Your task to perform on an android device: change timer sound Image 0: 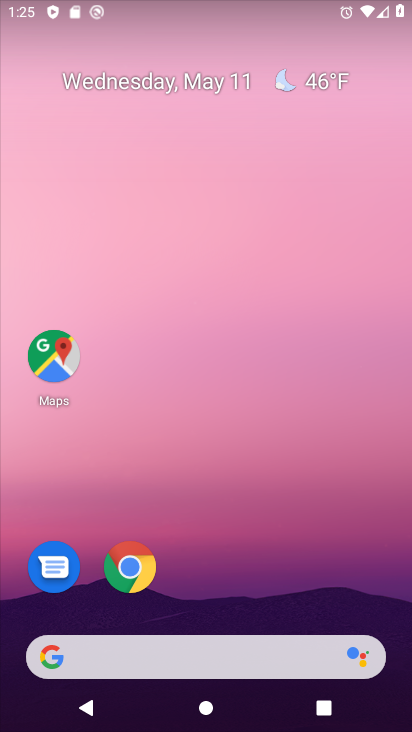
Step 0: drag from (240, 621) to (224, 5)
Your task to perform on an android device: change timer sound Image 1: 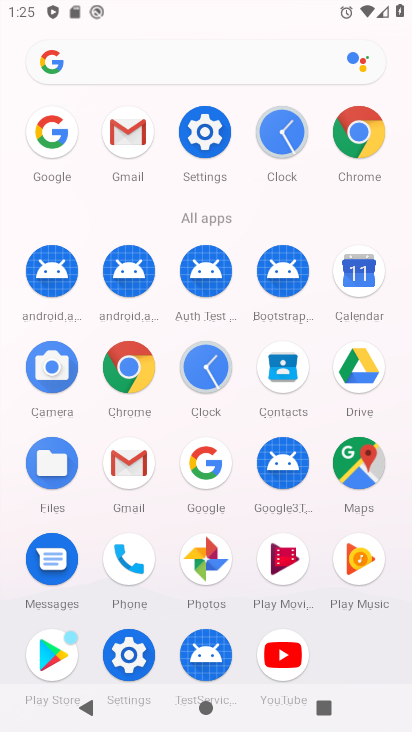
Step 1: click (194, 377)
Your task to perform on an android device: change timer sound Image 2: 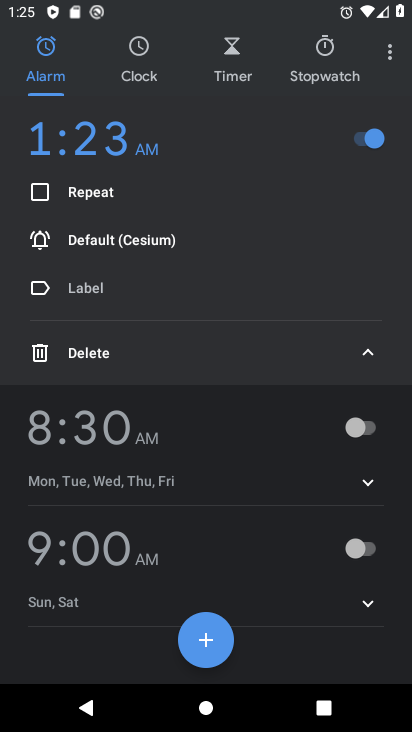
Step 2: click (382, 49)
Your task to perform on an android device: change timer sound Image 3: 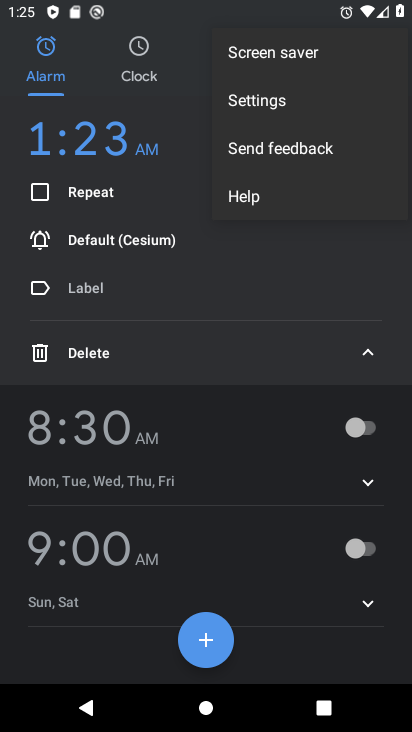
Step 3: click (253, 100)
Your task to perform on an android device: change timer sound Image 4: 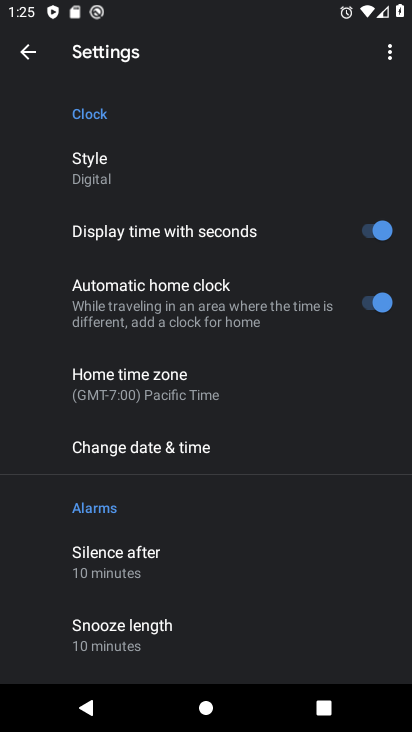
Step 4: drag from (110, 592) to (80, 73)
Your task to perform on an android device: change timer sound Image 5: 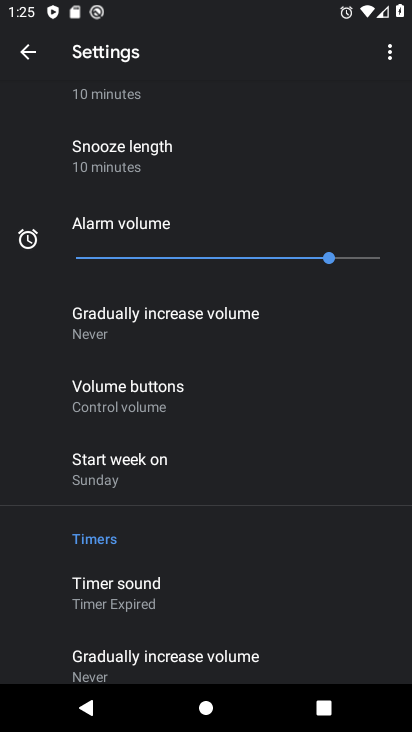
Step 5: click (129, 578)
Your task to perform on an android device: change timer sound Image 6: 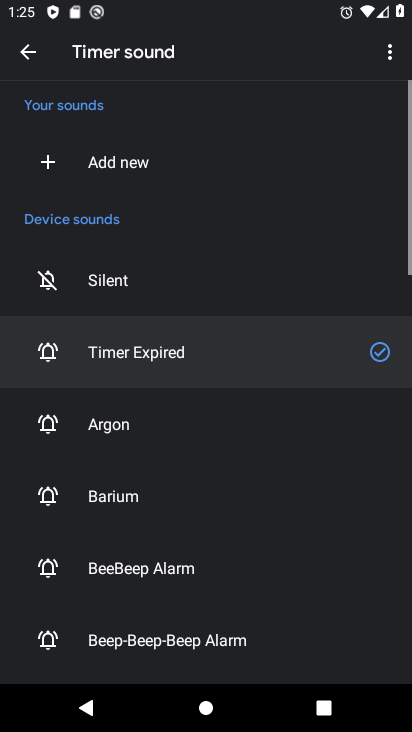
Step 6: click (153, 449)
Your task to perform on an android device: change timer sound Image 7: 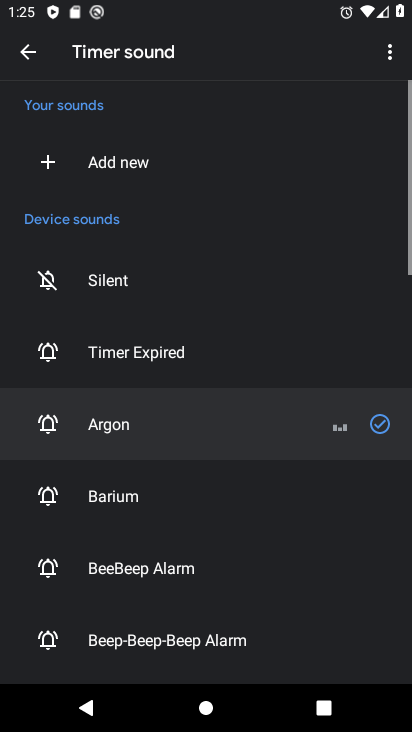
Step 7: task complete